Your task to perform on an android device: Show me popular games on the Play Store Image 0: 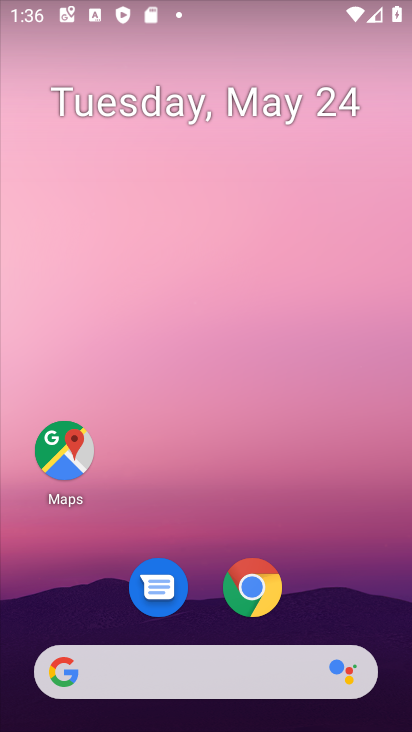
Step 0: drag from (240, 724) to (204, 329)
Your task to perform on an android device: Show me popular games on the Play Store Image 1: 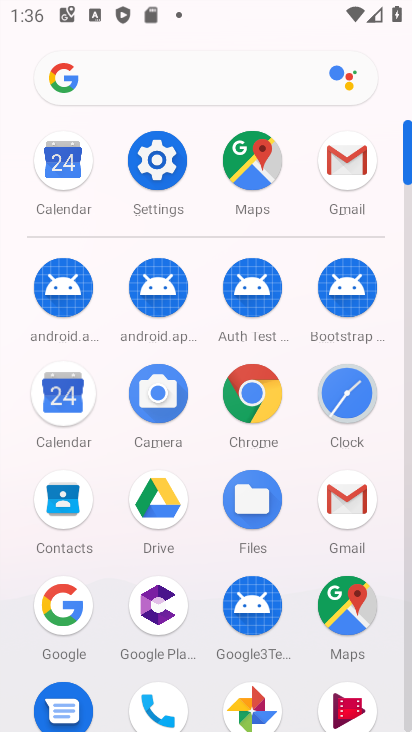
Step 1: drag from (232, 697) to (189, 274)
Your task to perform on an android device: Show me popular games on the Play Store Image 2: 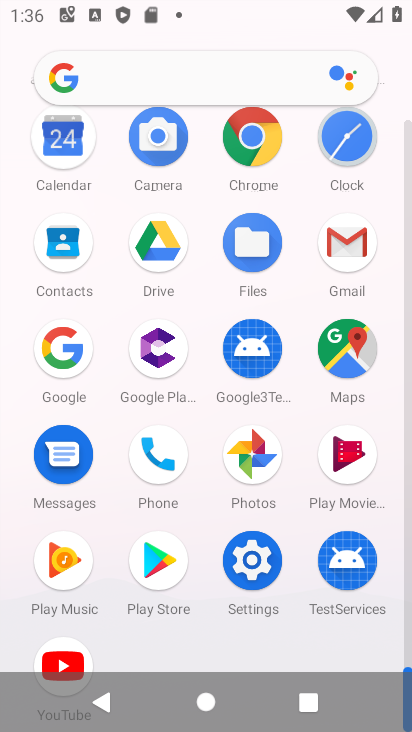
Step 2: click (163, 551)
Your task to perform on an android device: Show me popular games on the Play Store Image 3: 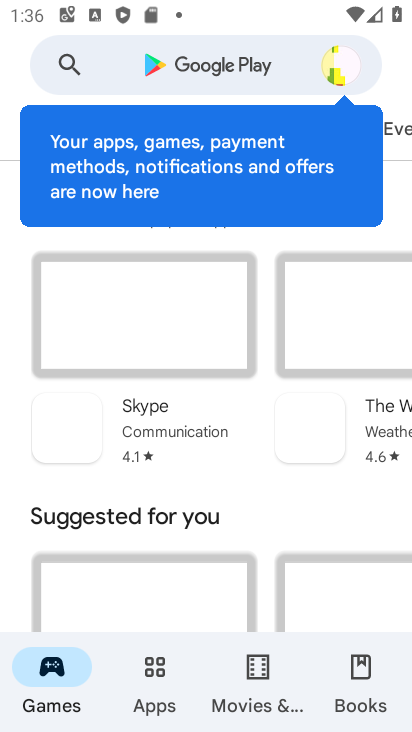
Step 3: task complete